Your task to perform on an android device: What's the weather going to be this weekend? Image 0: 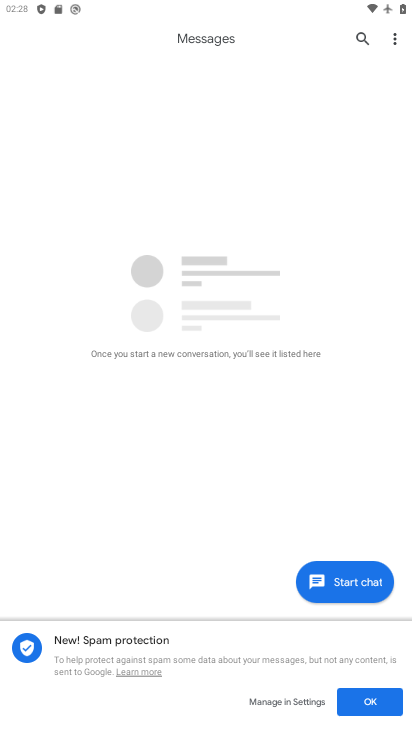
Step 0: press home button
Your task to perform on an android device: What's the weather going to be this weekend? Image 1: 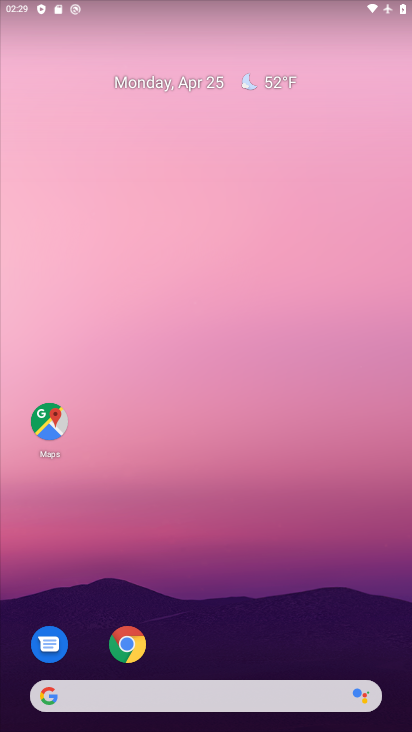
Step 1: drag from (255, 609) to (256, 93)
Your task to perform on an android device: What's the weather going to be this weekend? Image 2: 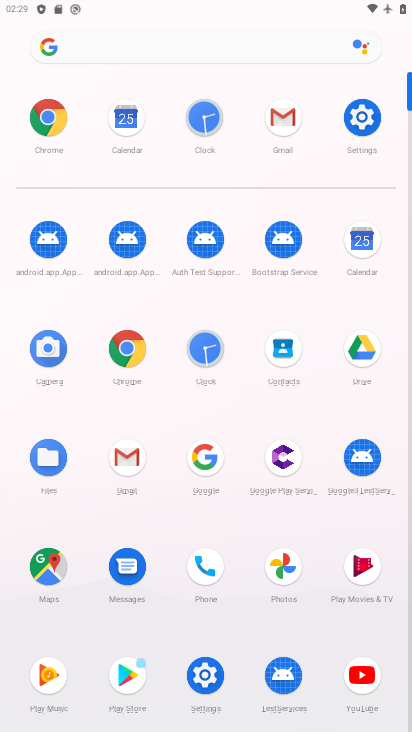
Step 2: click (357, 256)
Your task to perform on an android device: What's the weather going to be this weekend? Image 3: 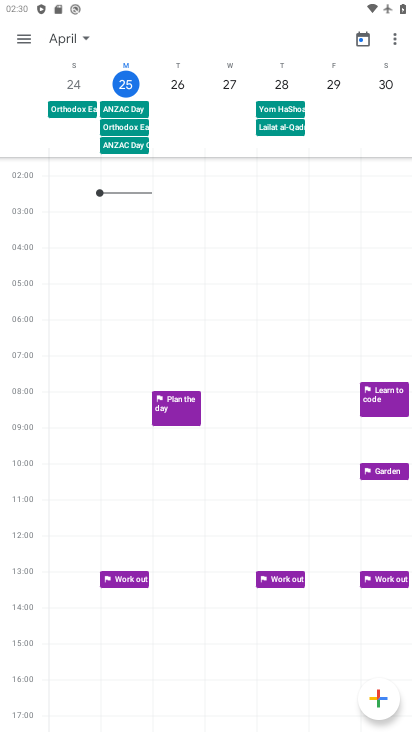
Step 3: click (15, 50)
Your task to perform on an android device: What's the weather going to be this weekend? Image 4: 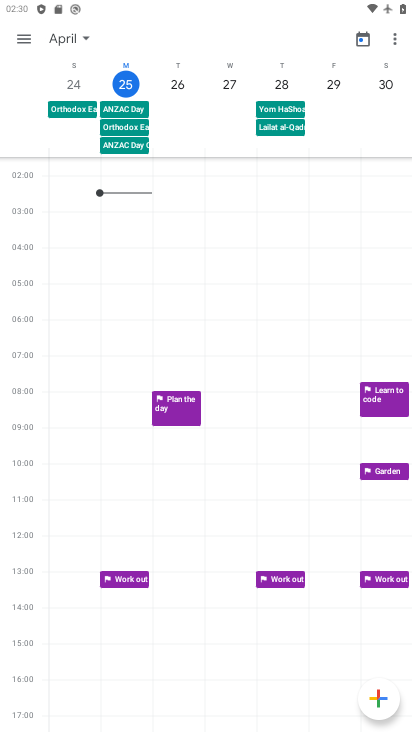
Step 4: press home button
Your task to perform on an android device: What's the weather going to be this weekend? Image 5: 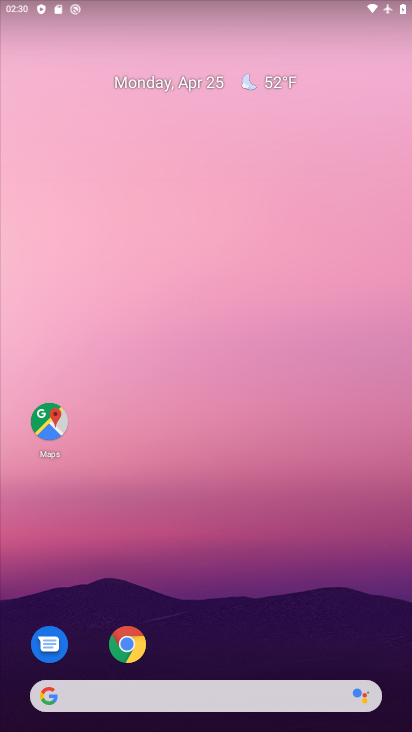
Step 5: drag from (229, 658) to (208, 244)
Your task to perform on an android device: What's the weather going to be this weekend? Image 6: 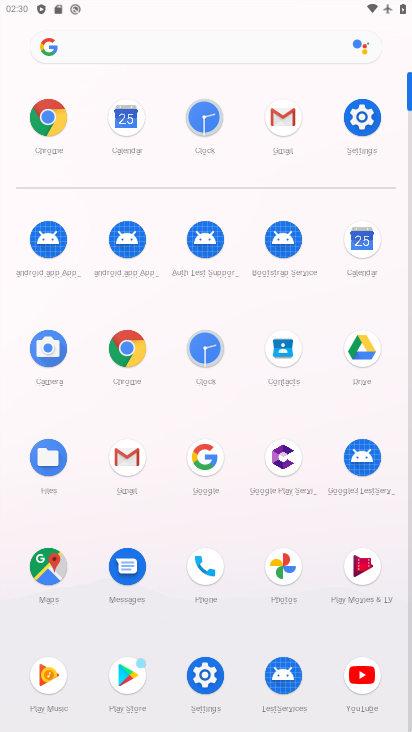
Step 6: click (359, 239)
Your task to perform on an android device: What's the weather going to be this weekend? Image 7: 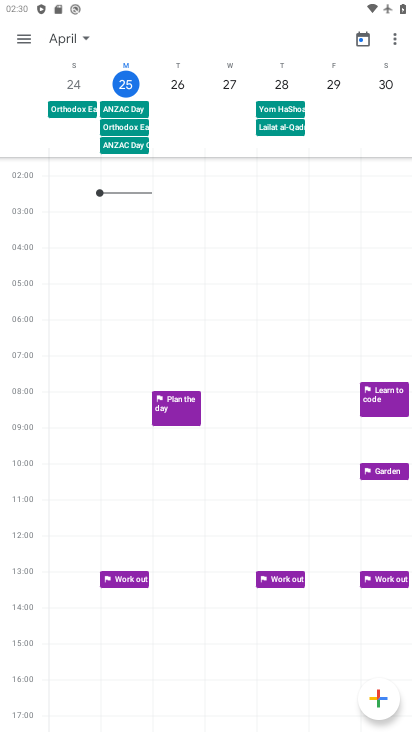
Step 7: task complete